Your task to perform on an android device: Open Yahoo.com Image 0: 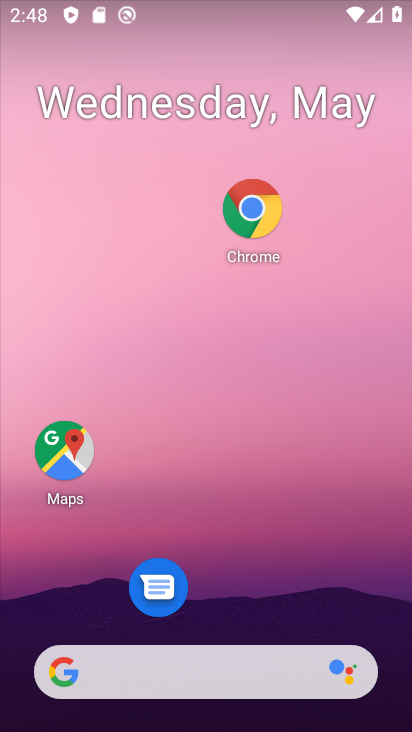
Step 0: click (261, 198)
Your task to perform on an android device: Open Yahoo.com Image 1: 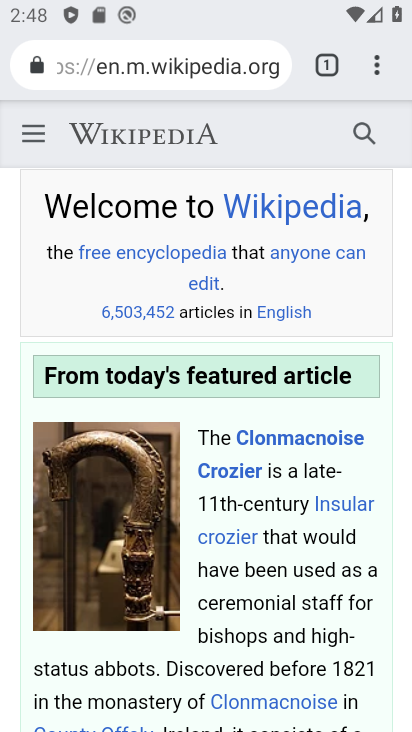
Step 1: click (334, 80)
Your task to perform on an android device: Open Yahoo.com Image 2: 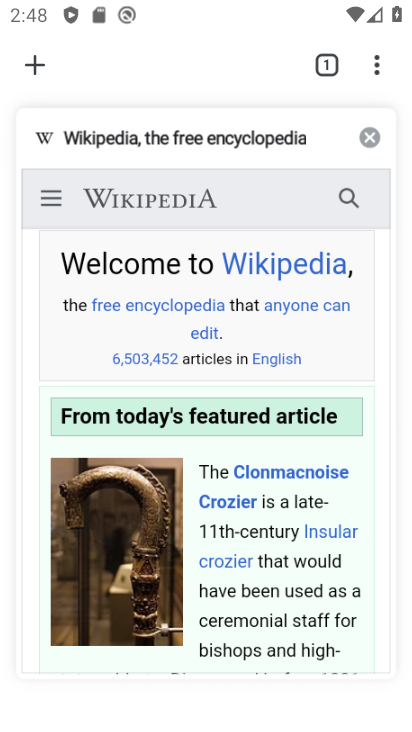
Step 2: click (32, 72)
Your task to perform on an android device: Open Yahoo.com Image 3: 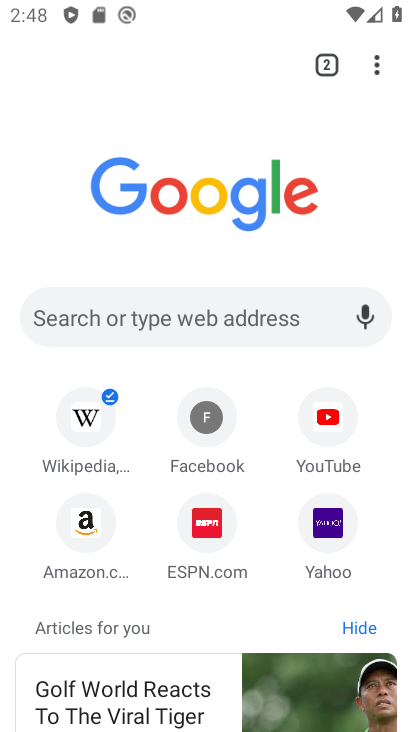
Step 3: click (323, 535)
Your task to perform on an android device: Open Yahoo.com Image 4: 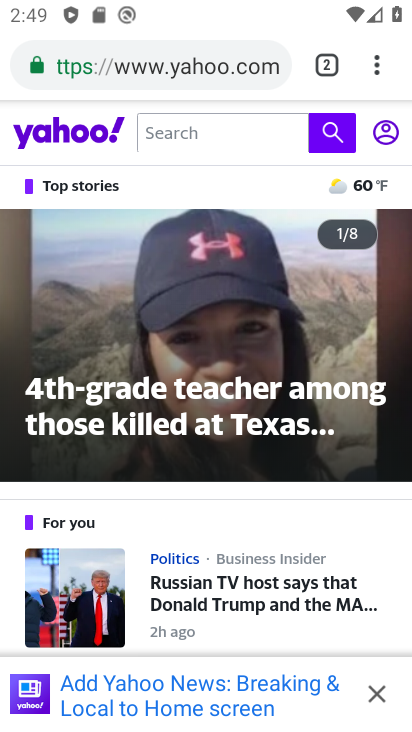
Step 4: task complete